Your task to perform on an android device: choose inbox layout in the gmail app Image 0: 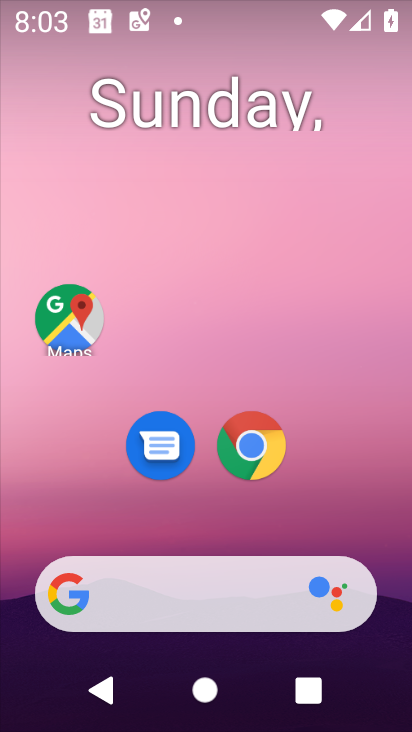
Step 0: press home button
Your task to perform on an android device: choose inbox layout in the gmail app Image 1: 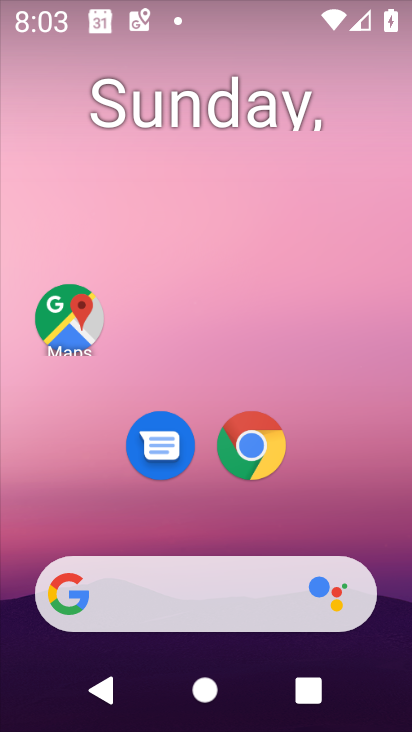
Step 1: drag from (24, 573) to (232, 147)
Your task to perform on an android device: choose inbox layout in the gmail app Image 2: 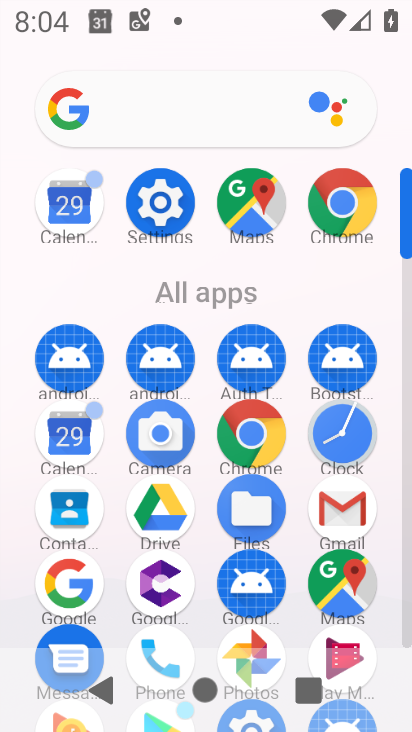
Step 2: click (350, 501)
Your task to perform on an android device: choose inbox layout in the gmail app Image 3: 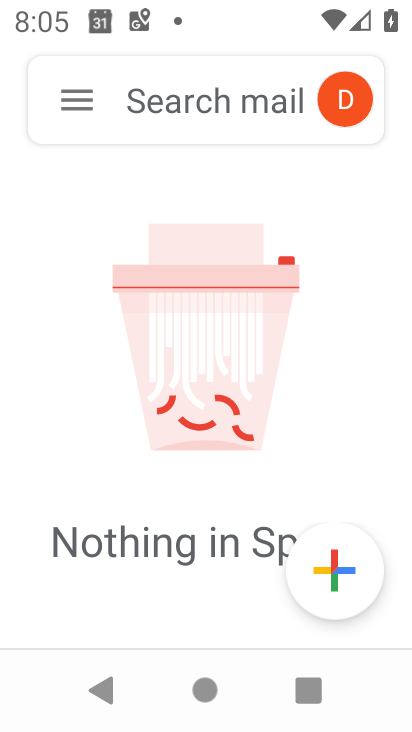
Step 3: click (41, 85)
Your task to perform on an android device: choose inbox layout in the gmail app Image 4: 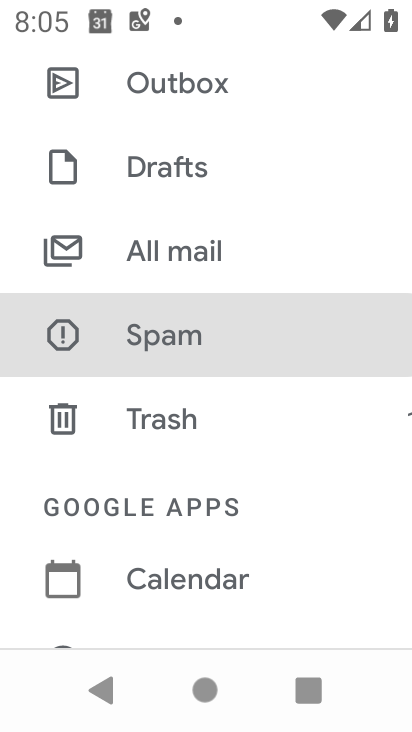
Step 4: drag from (157, 126) to (164, 632)
Your task to perform on an android device: choose inbox layout in the gmail app Image 5: 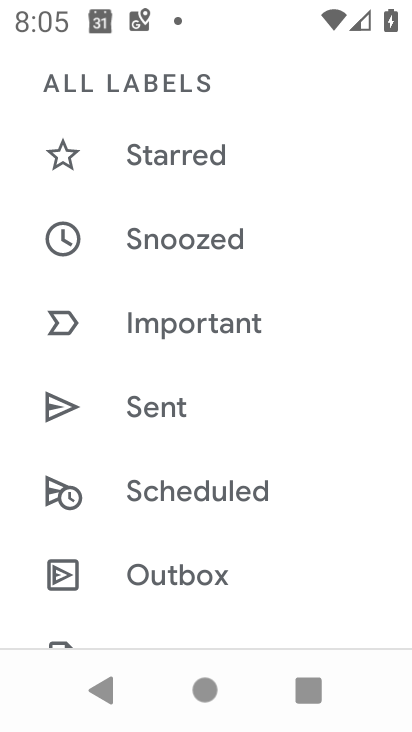
Step 5: drag from (205, 196) to (176, 621)
Your task to perform on an android device: choose inbox layout in the gmail app Image 6: 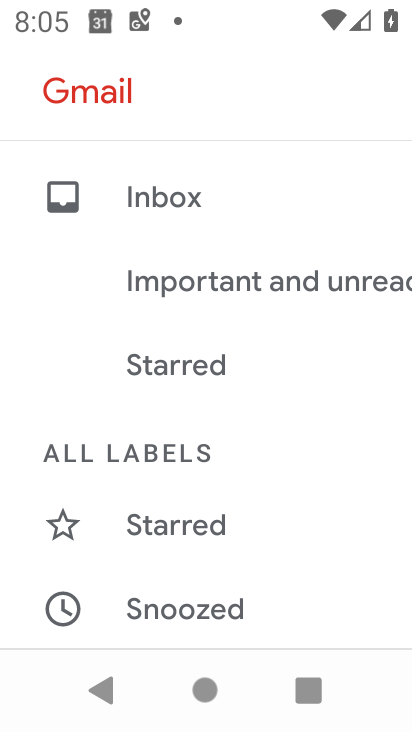
Step 6: click (155, 200)
Your task to perform on an android device: choose inbox layout in the gmail app Image 7: 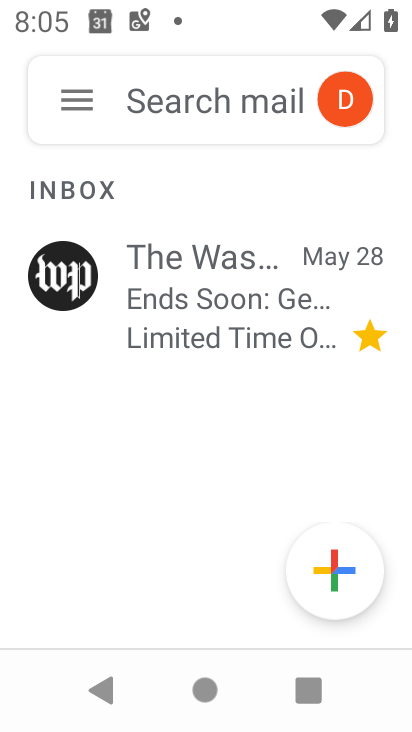
Step 7: task complete